Your task to perform on an android device: open the mobile data screen to see how much data has been used Image 0: 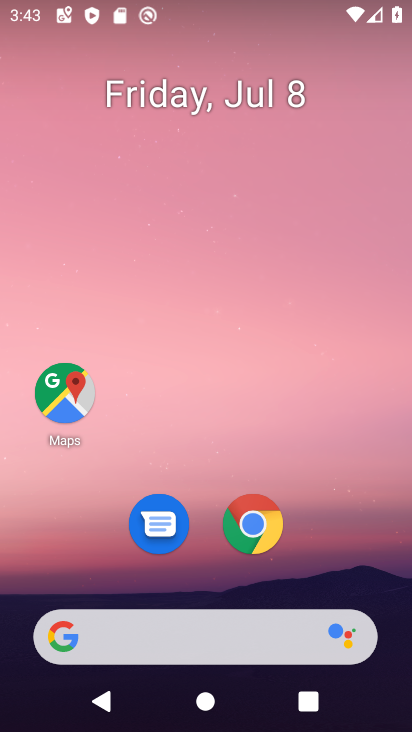
Step 0: drag from (222, 469) to (216, 7)
Your task to perform on an android device: open the mobile data screen to see how much data has been used Image 1: 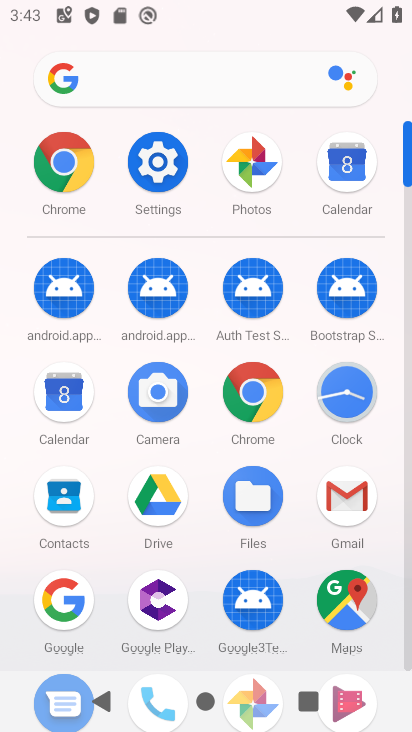
Step 1: click (153, 166)
Your task to perform on an android device: open the mobile data screen to see how much data has been used Image 2: 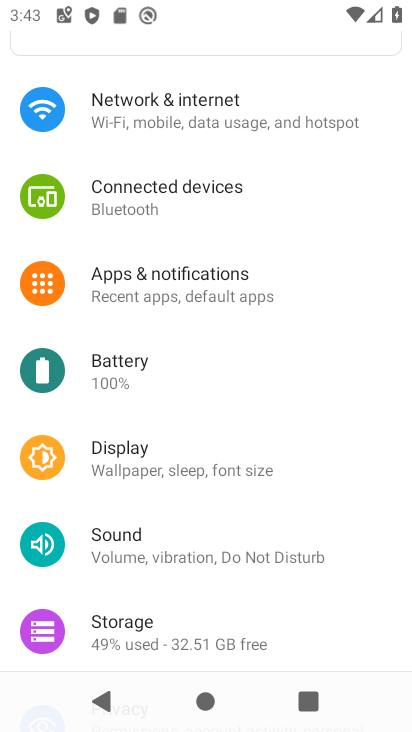
Step 2: click (239, 107)
Your task to perform on an android device: open the mobile data screen to see how much data has been used Image 3: 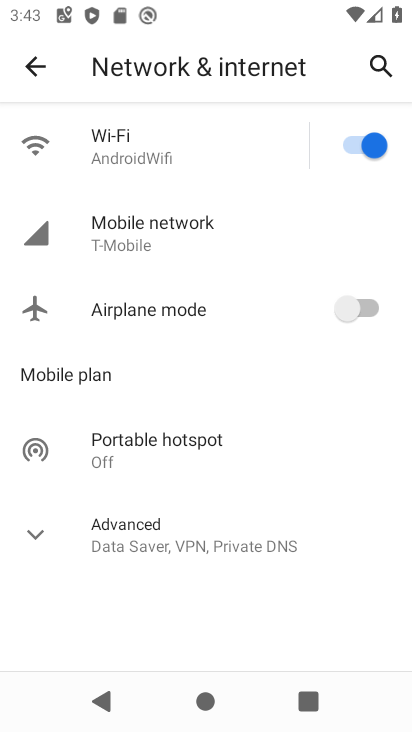
Step 3: click (195, 227)
Your task to perform on an android device: open the mobile data screen to see how much data has been used Image 4: 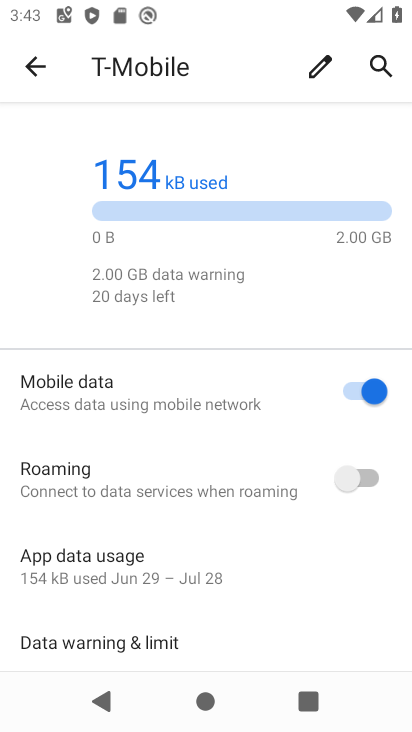
Step 4: task complete